Your task to perform on an android device: Open the phone app and click the voicemail tab. Image 0: 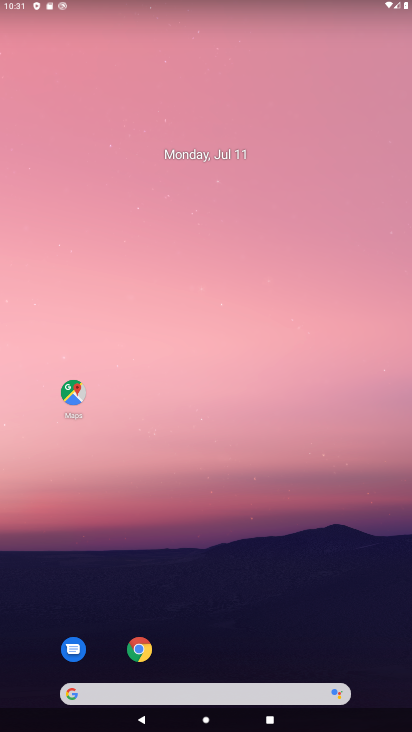
Step 0: drag from (208, 689) to (258, 110)
Your task to perform on an android device: Open the phone app and click the voicemail tab. Image 1: 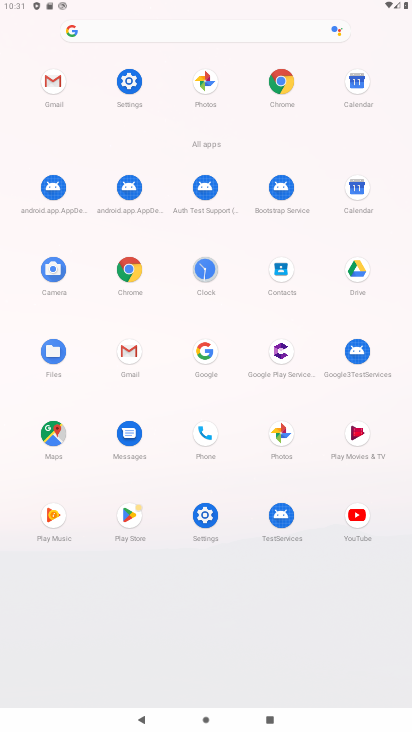
Step 1: click (203, 436)
Your task to perform on an android device: Open the phone app and click the voicemail tab. Image 2: 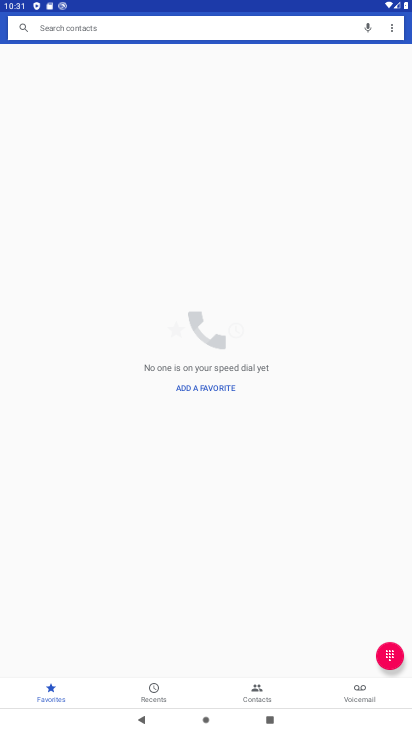
Step 2: click (362, 691)
Your task to perform on an android device: Open the phone app and click the voicemail tab. Image 3: 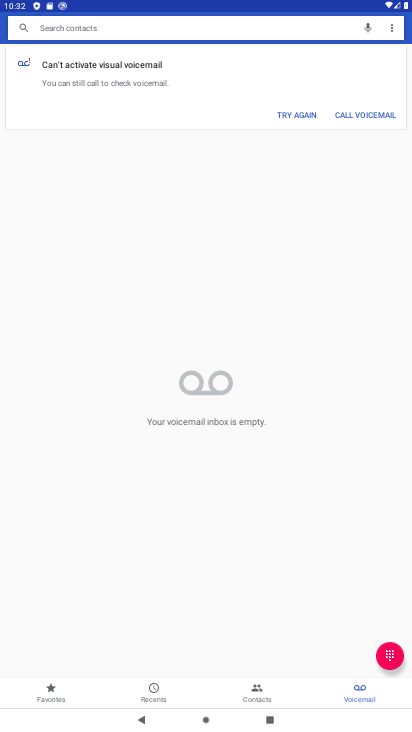
Step 3: task complete